Your task to perform on an android device: open a new tab in the chrome app Image 0: 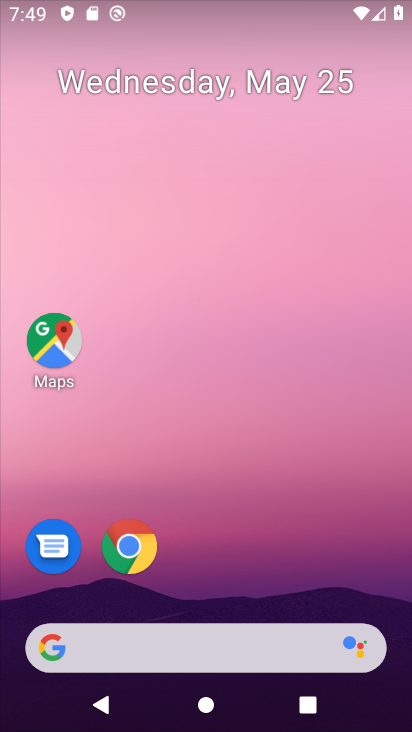
Step 0: click (129, 548)
Your task to perform on an android device: open a new tab in the chrome app Image 1: 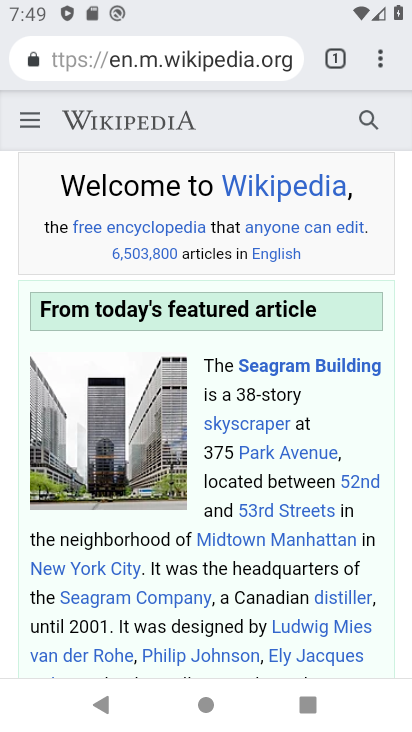
Step 1: click (346, 56)
Your task to perform on an android device: open a new tab in the chrome app Image 2: 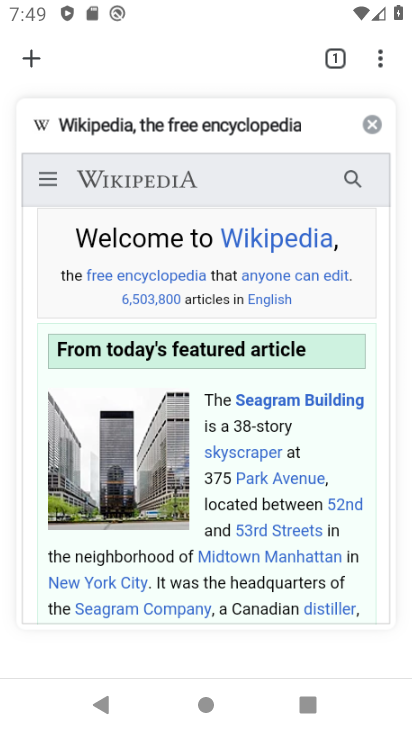
Step 2: click (39, 58)
Your task to perform on an android device: open a new tab in the chrome app Image 3: 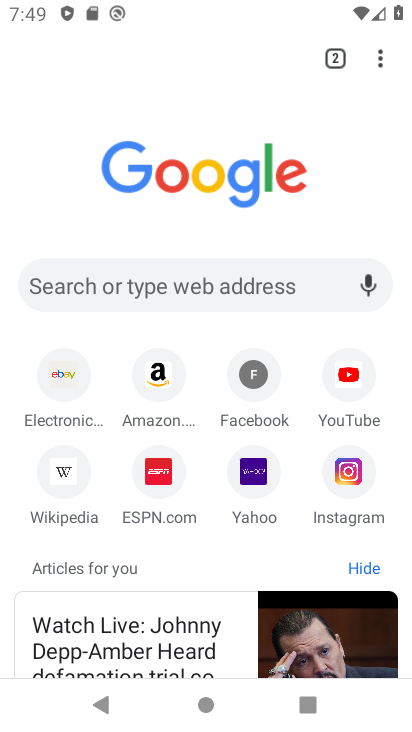
Step 3: task complete